Your task to perform on an android device: turn off picture-in-picture Image 0: 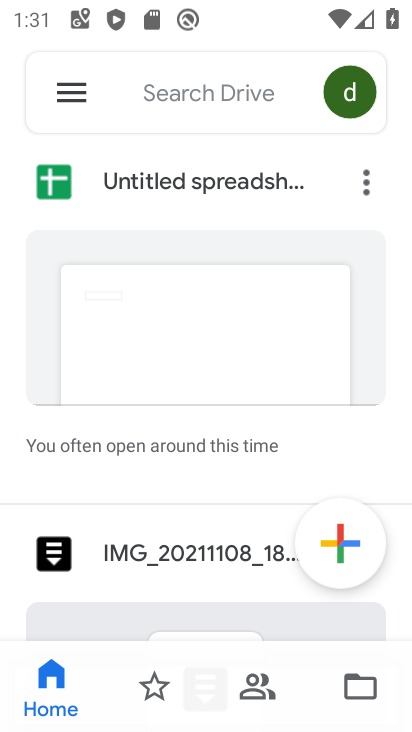
Step 0: press home button
Your task to perform on an android device: turn off picture-in-picture Image 1: 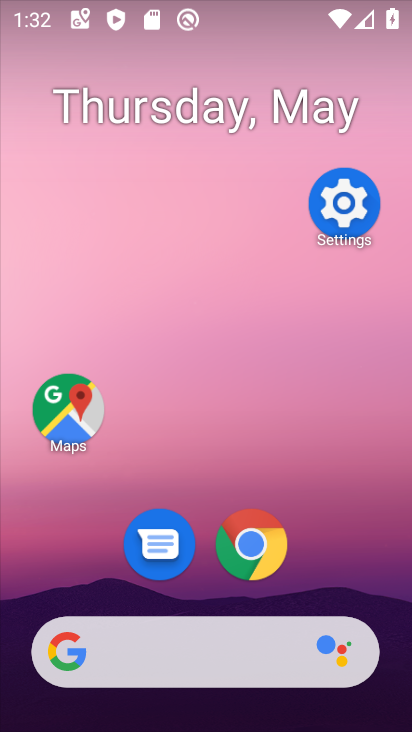
Step 1: click (361, 226)
Your task to perform on an android device: turn off picture-in-picture Image 2: 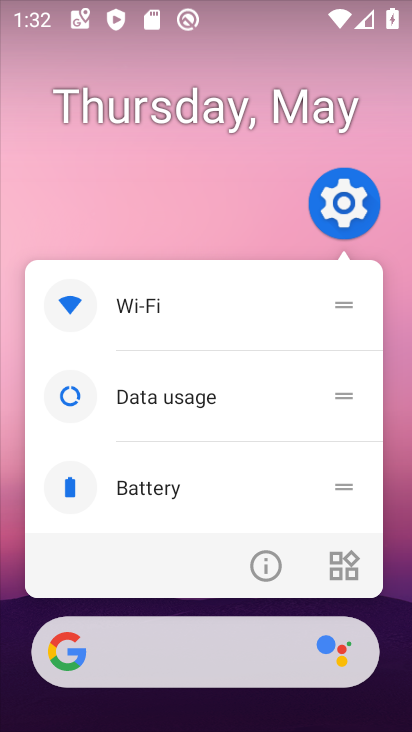
Step 2: click (361, 218)
Your task to perform on an android device: turn off picture-in-picture Image 3: 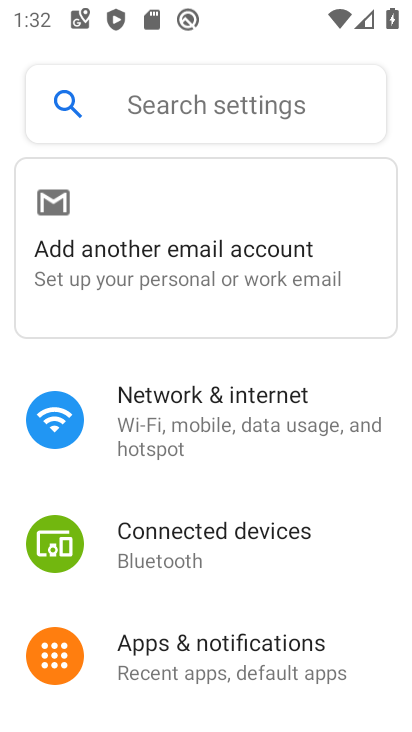
Step 3: click (225, 662)
Your task to perform on an android device: turn off picture-in-picture Image 4: 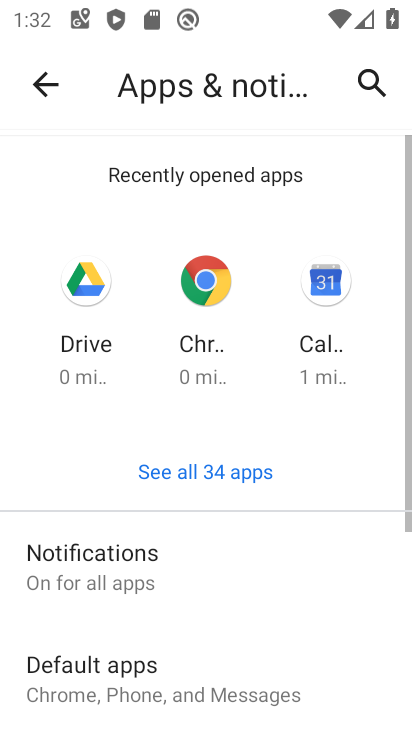
Step 4: drag from (214, 679) to (290, 149)
Your task to perform on an android device: turn off picture-in-picture Image 5: 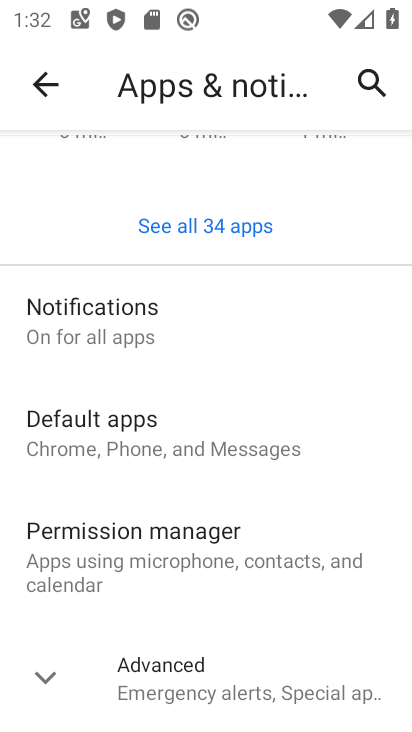
Step 5: click (45, 681)
Your task to perform on an android device: turn off picture-in-picture Image 6: 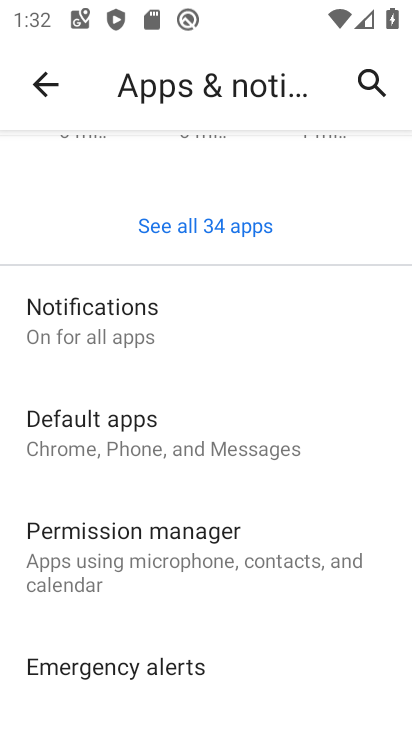
Step 6: drag from (129, 641) to (211, 356)
Your task to perform on an android device: turn off picture-in-picture Image 7: 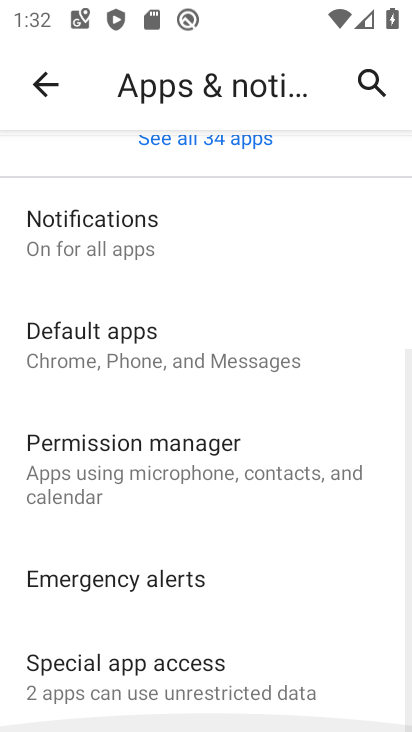
Step 7: click (127, 688)
Your task to perform on an android device: turn off picture-in-picture Image 8: 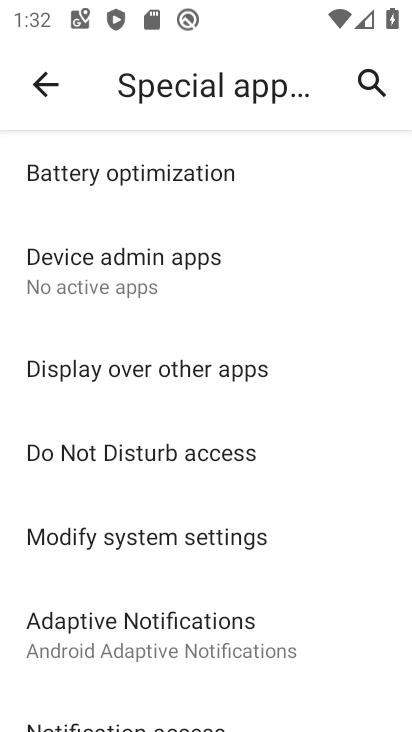
Step 8: drag from (217, 629) to (286, 203)
Your task to perform on an android device: turn off picture-in-picture Image 9: 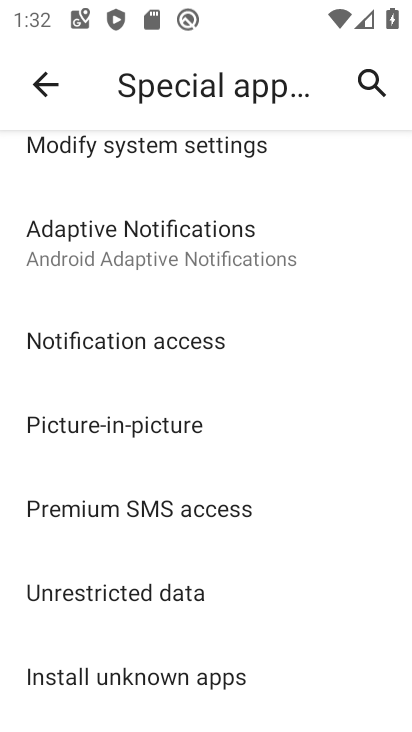
Step 9: click (169, 432)
Your task to perform on an android device: turn off picture-in-picture Image 10: 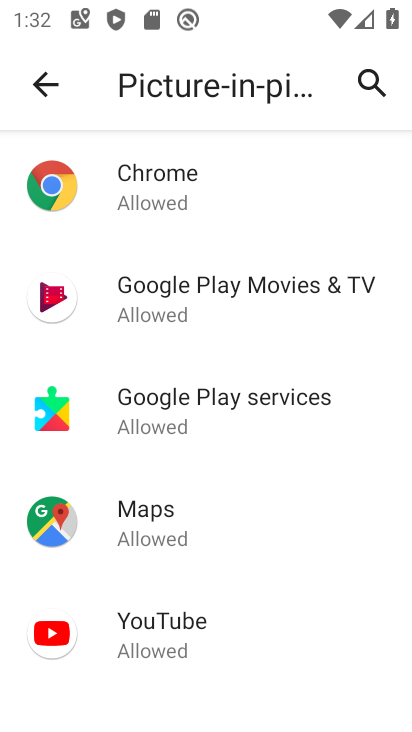
Step 10: click (224, 178)
Your task to perform on an android device: turn off picture-in-picture Image 11: 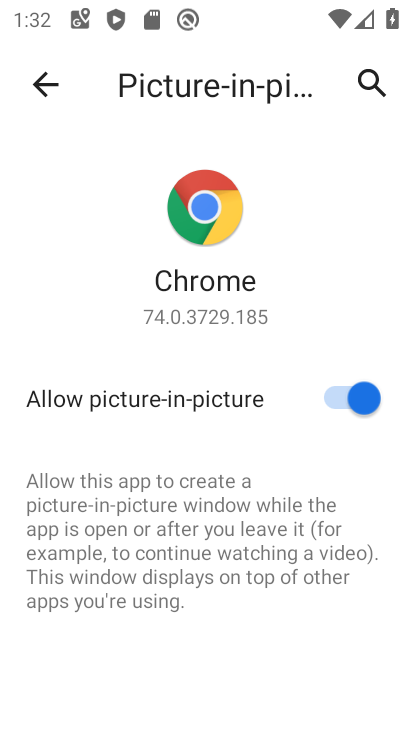
Step 11: click (346, 405)
Your task to perform on an android device: turn off picture-in-picture Image 12: 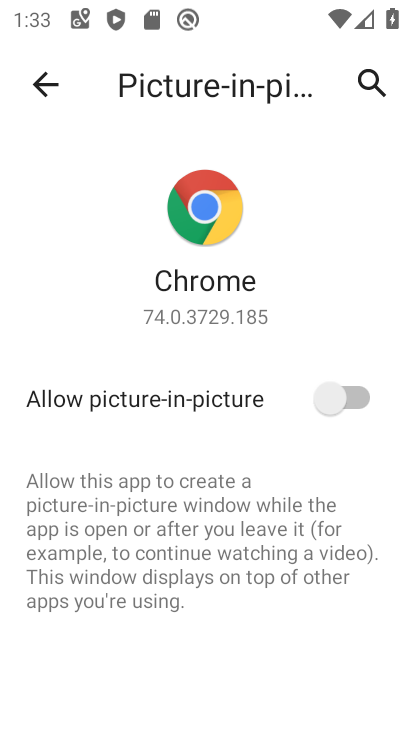
Step 12: task complete